Your task to perform on an android device: turn on notifications settings in the gmail app Image 0: 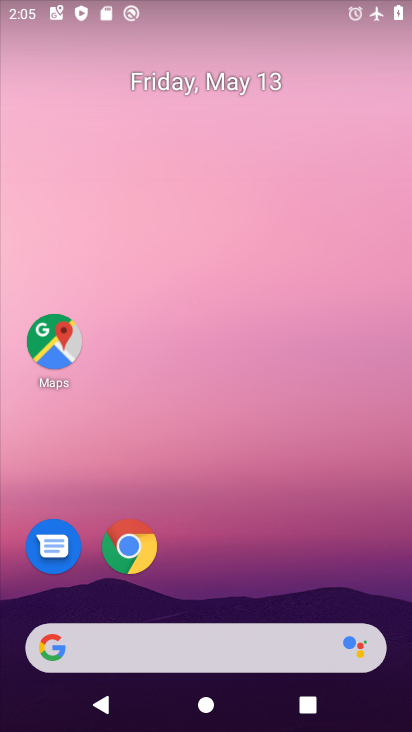
Step 0: drag from (285, 545) to (298, 68)
Your task to perform on an android device: turn on notifications settings in the gmail app Image 1: 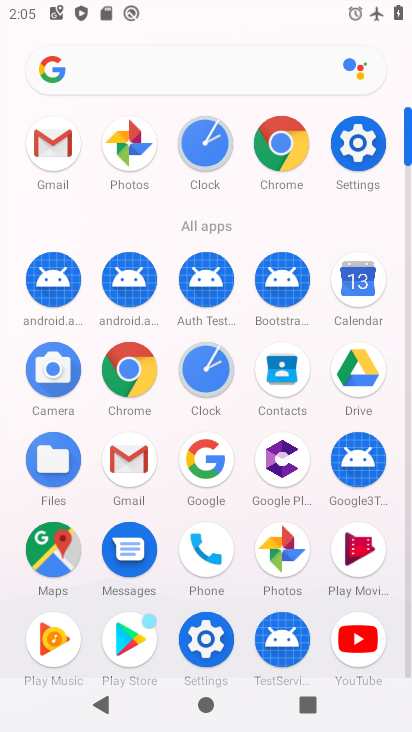
Step 1: click (138, 463)
Your task to perform on an android device: turn on notifications settings in the gmail app Image 2: 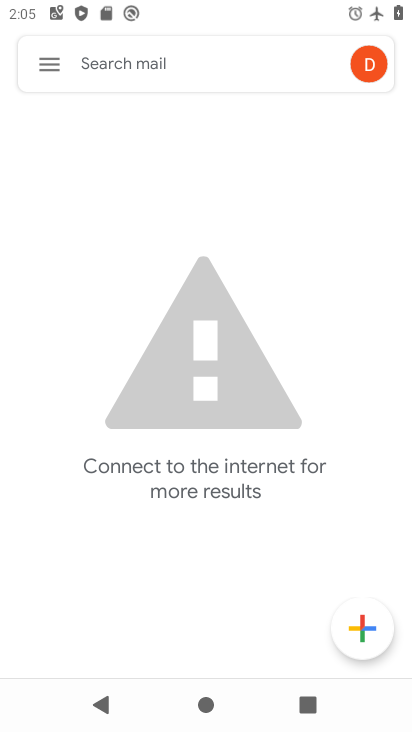
Step 2: click (49, 68)
Your task to perform on an android device: turn on notifications settings in the gmail app Image 3: 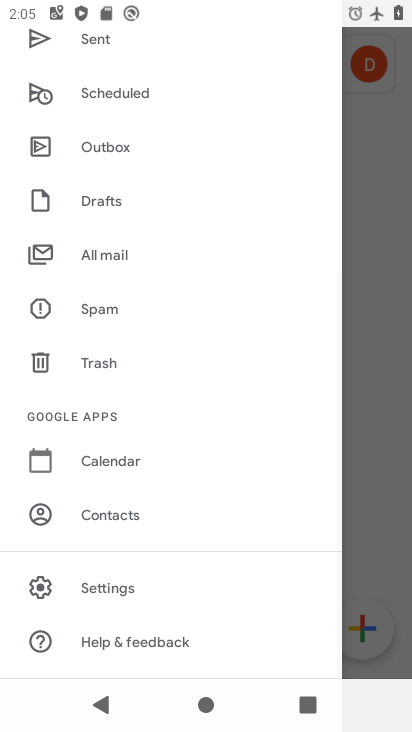
Step 3: click (153, 599)
Your task to perform on an android device: turn on notifications settings in the gmail app Image 4: 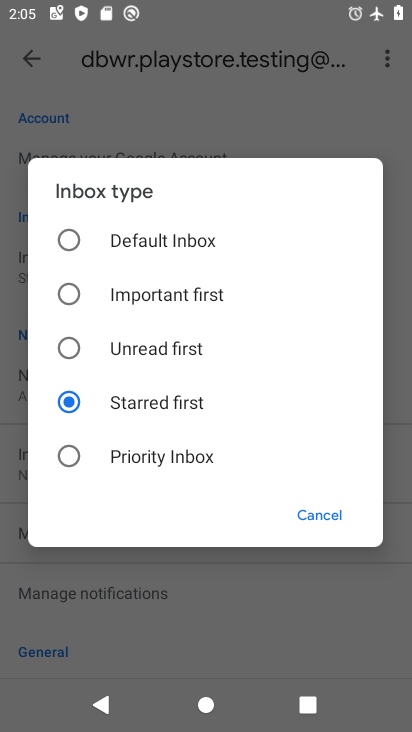
Step 4: click (294, 507)
Your task to perform on an android device: turn on notifications settings in the gmail app Image 5: 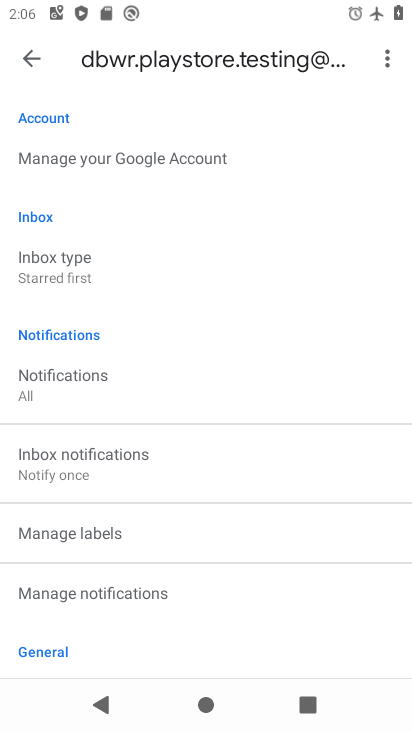
Step 5: click (89, 592)
Your task to perform on an android device: turn on notifications settings in the gmail app Image 6: 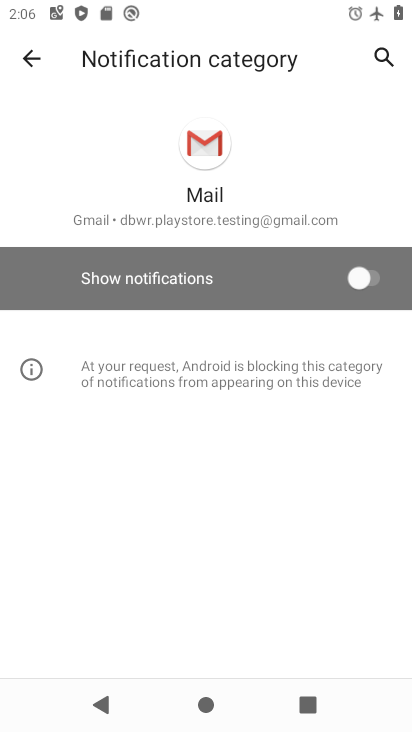
Step 6: task complete